Your task to perform on an android device: remove spam from my inbox in the gmail app Image 0: 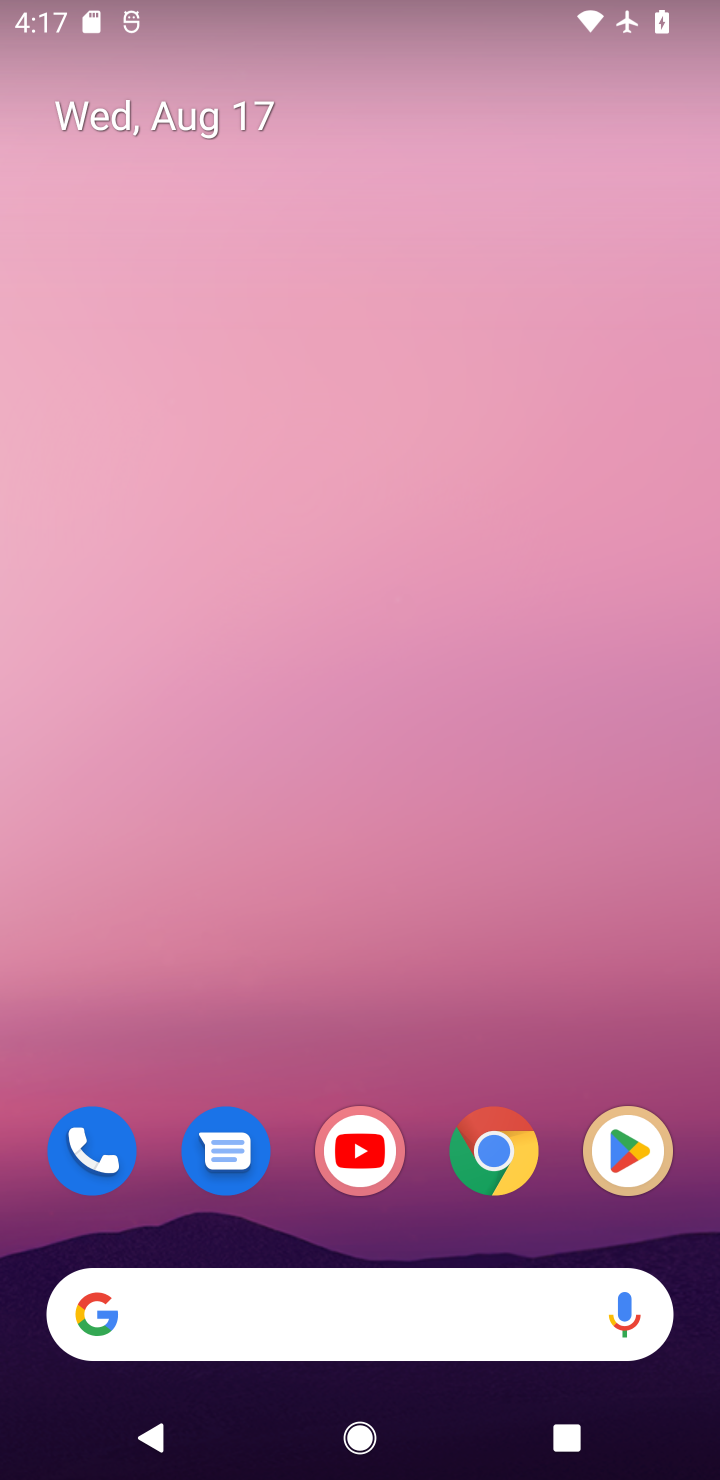
Step 0: drag from (379, 1229) to (449, 227)
Your task to perform on an android device: remove spam from my inbox in the gmail app Image 1: 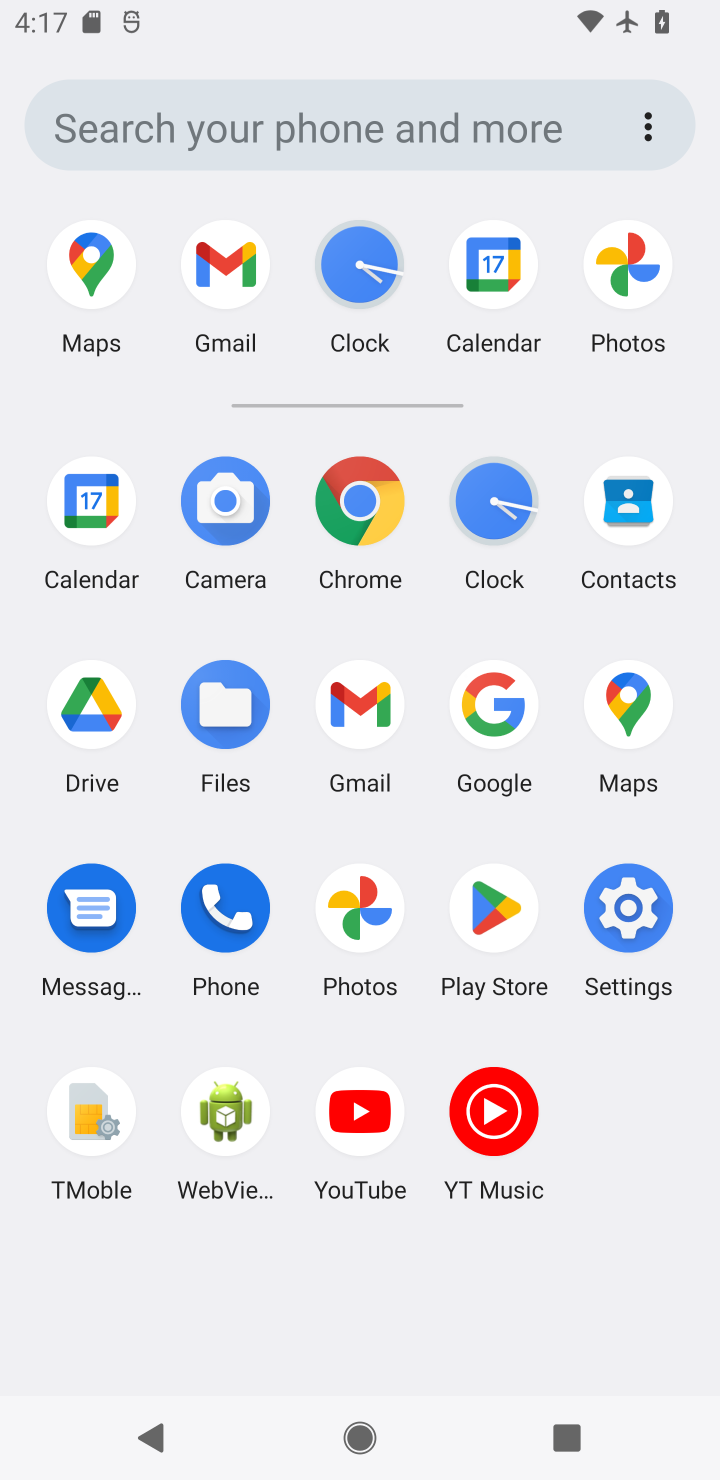
Step 1: click (367, 696)
Your task to perform on an android device: remove spam from my inbox in the gmail app Image 2: 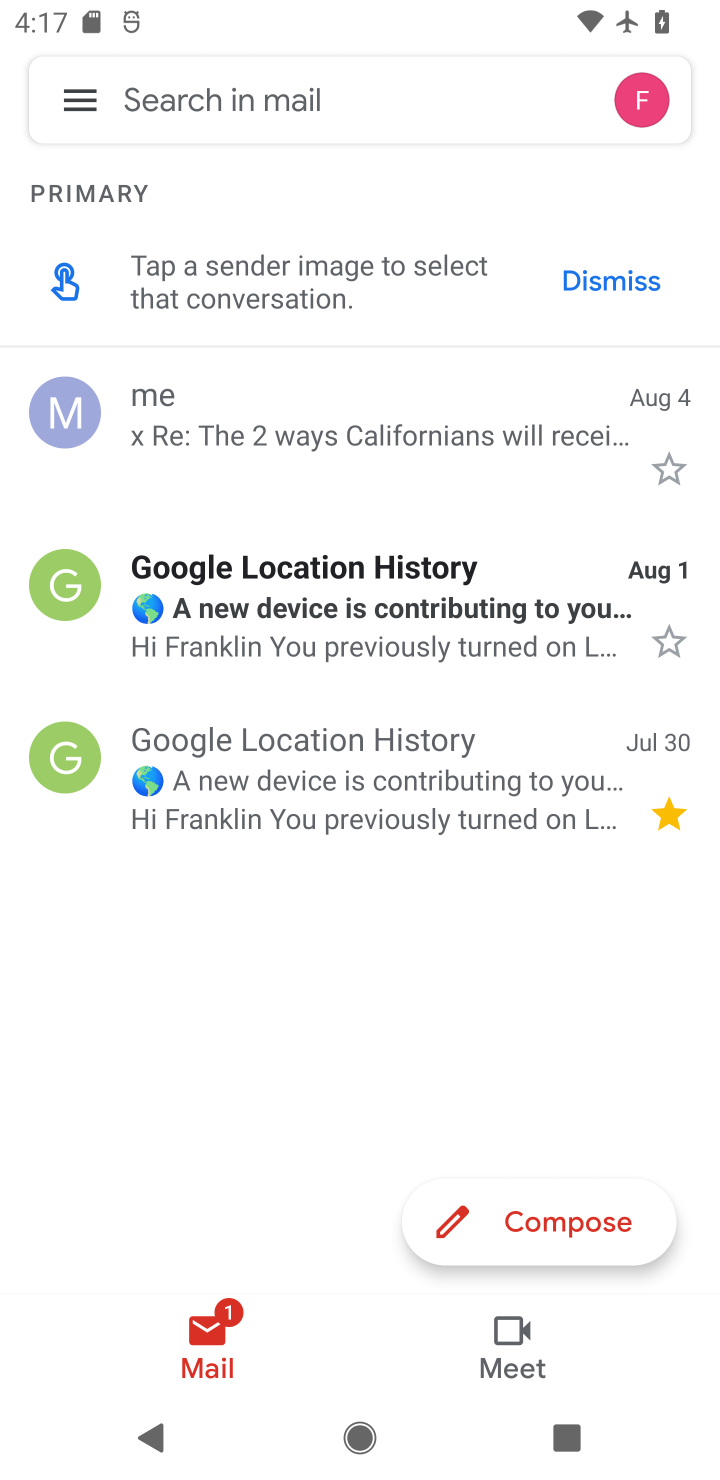
Step 2: click (60, 105)
Your task to perform on an android device: remove spam from my inbox in the gmail app Image 3: 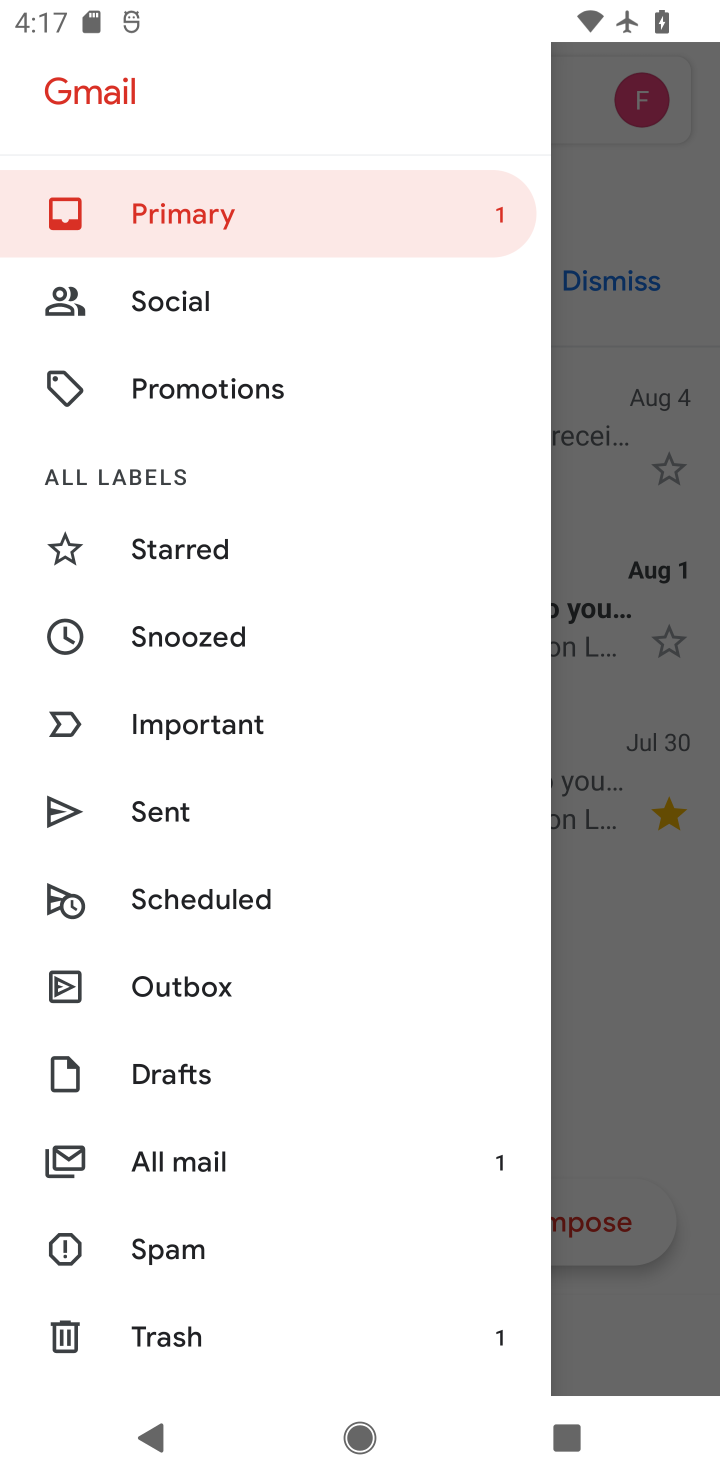
Step 3: click (219, 1262)
Your task to perform on an android device: remove spam from my inbox in the gmail app Image 4: 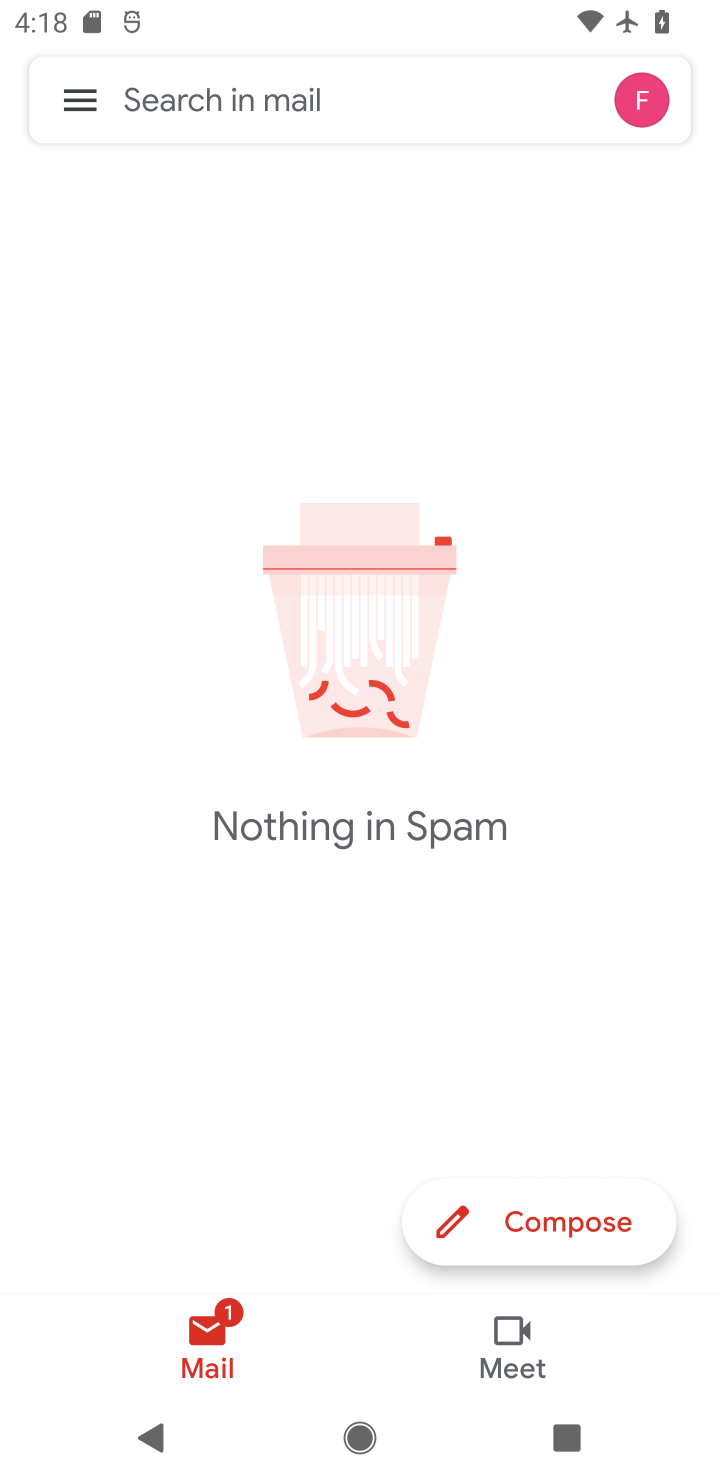
Step 4: task complete